Your task to perform on an android device: turn off smart reply in the gmail app Image 0: 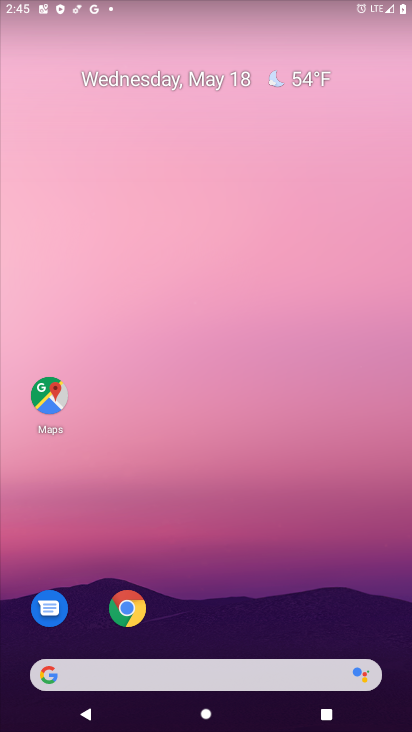
Step 0: drag from (339, 635) to (311, 4)
Your task to perform on an android device: turn off smart reply in the gmail app Image 1: 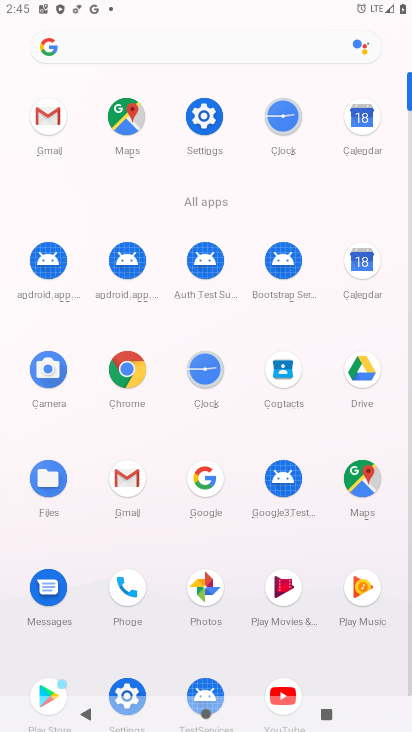
Step 1: click (116, 477)
Your task to perform on an android device: turn off smart reply in the gmail app Image 2: 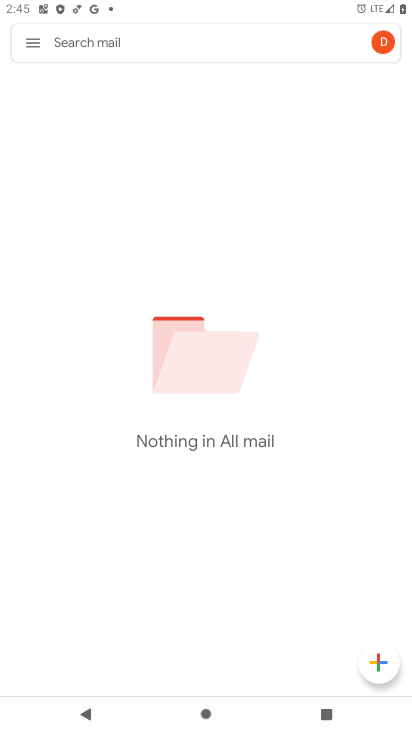
Step 2: click (32, 46)
Your task to perform on an android device: turn off smart reply in the gmail app Image 3: 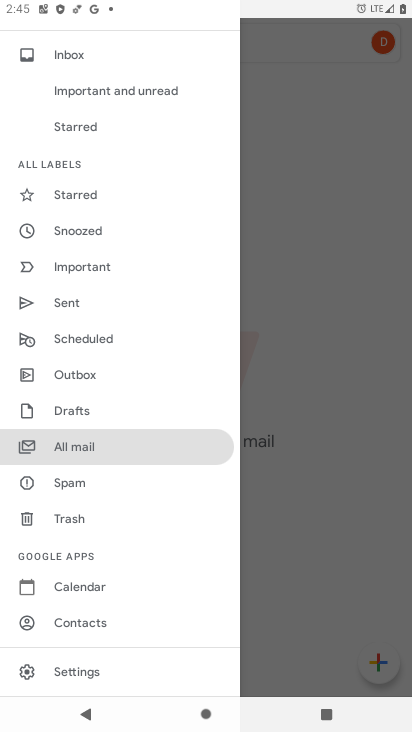
Step 3: click (94, 669)
Your task to perform on an android device: turn off smart reply in the gmail app Image 4: 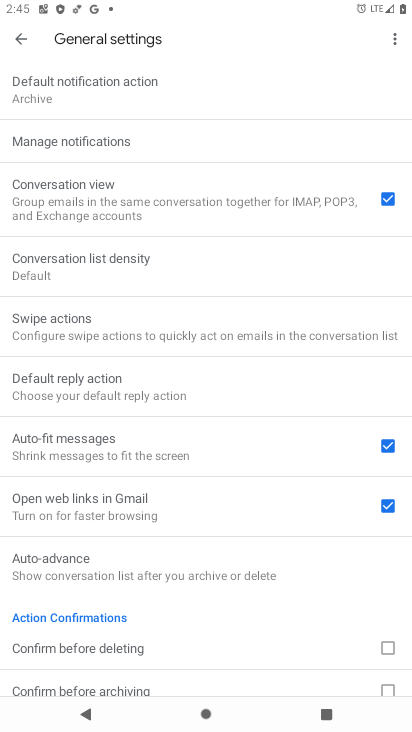
Step 4: click (20, 29)
Your task to perform on an android device: turn off smart reply in the gmail app Image 5: 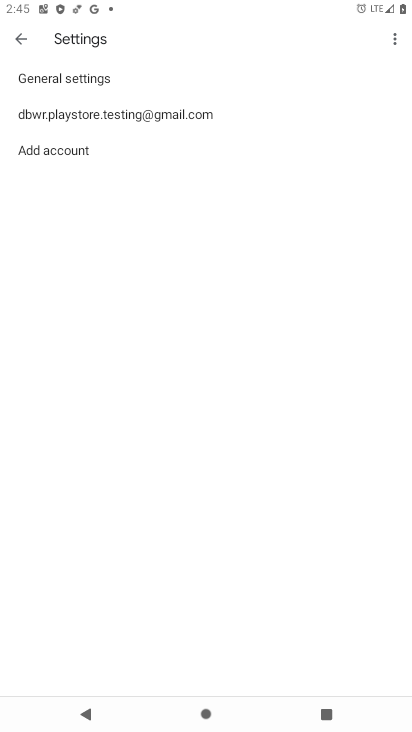
Step 5: click (56, 119)
Your task to perform on an android device: turn off smart reply in the gmail app Image 6: 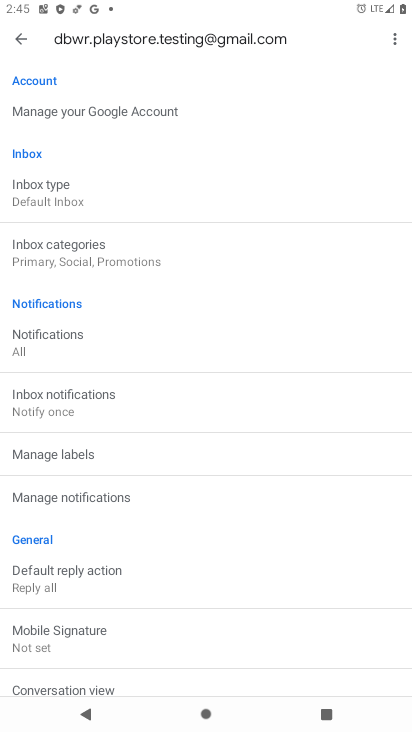
Step 6: drag from (182, 557) to (159, 217)
Your task to perform on an android device: turn off smart reply in the gmail app Image 7: 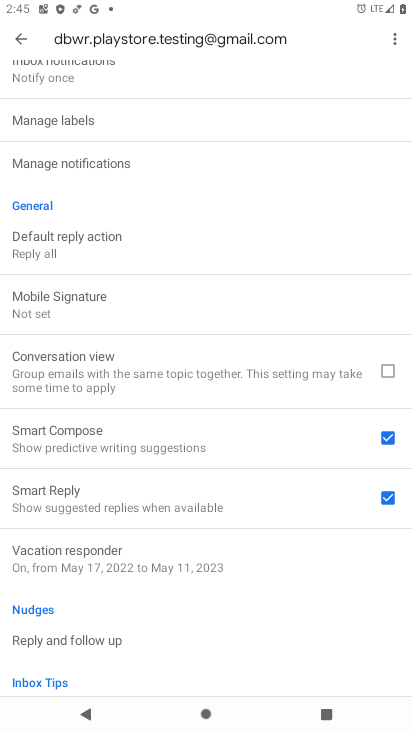
Step 7: click (395, 500)
Your task to perform on an android device: turn off smart reply in the gmail app Image 8: 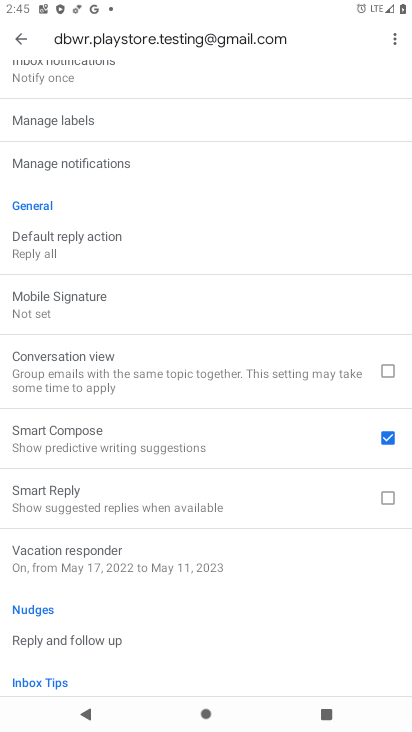
Step 8: task complete